Your task to perform on an android device: Go to accessibility settings Image 0: 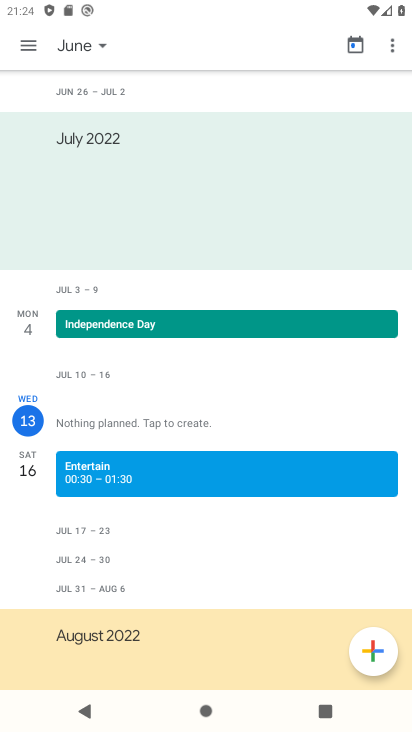
Step 0: press back button
Your task to perform on an android device: Go to accessibility settings Image 1: 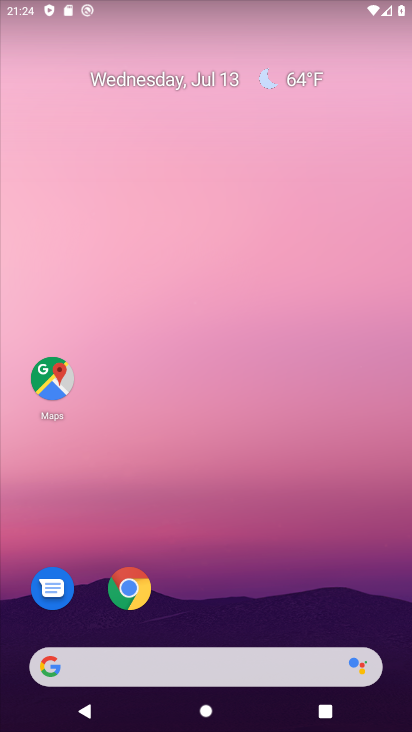
Step 1: drag from (222, 605) to (354, 32)
Your task to perform on an android device: Go to accessibility settings Image 2: 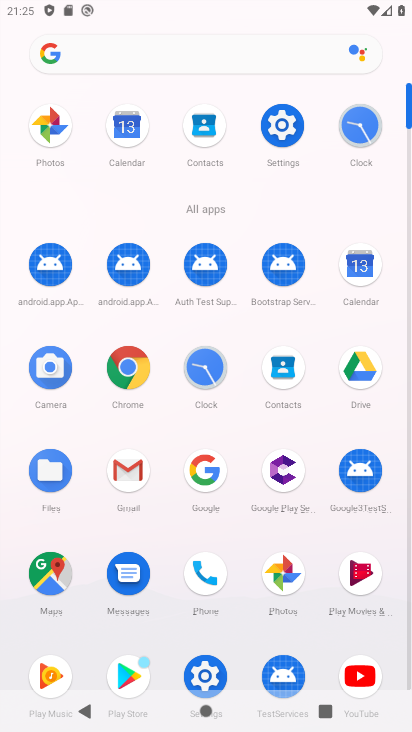
Step 2: click (301, 123)
Your task to perform on an android device: Go to accessibility settings Image 3: 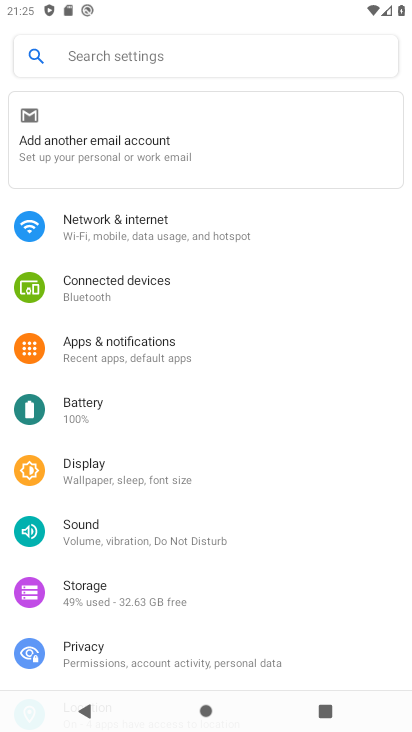
Step 3: drag from (152, 606) to (237, 50)
Your task to perform on an android device: Go to accessibility settings Image 4: 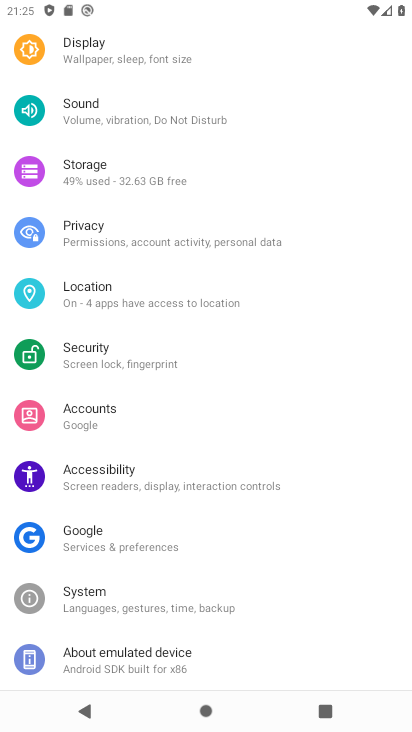
Step 4: click (129, 477)
Your task to perform on an android device: Go to accessibility settings Image 5: 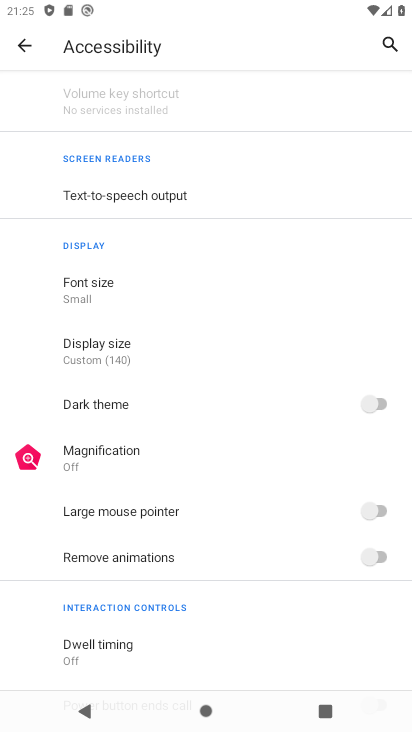
Step 5: task complete